Your task to perform on an android device: Search for seafood restaurants on Google Maps Image 0: 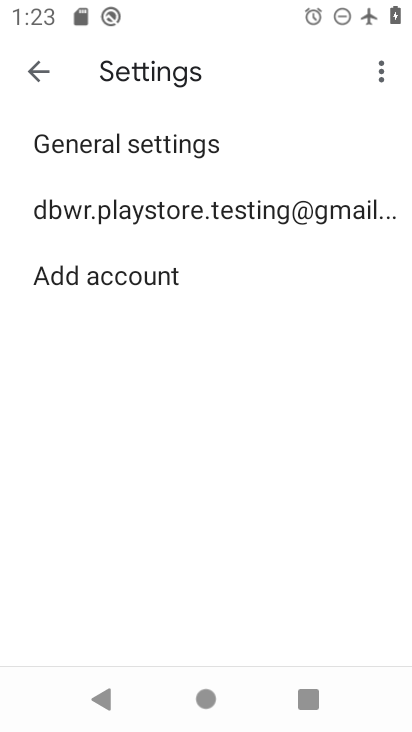
Step 0: click (193, 693)
Your task to perform on an android device: Search for seafood restaurants on Google Maps Image 1: 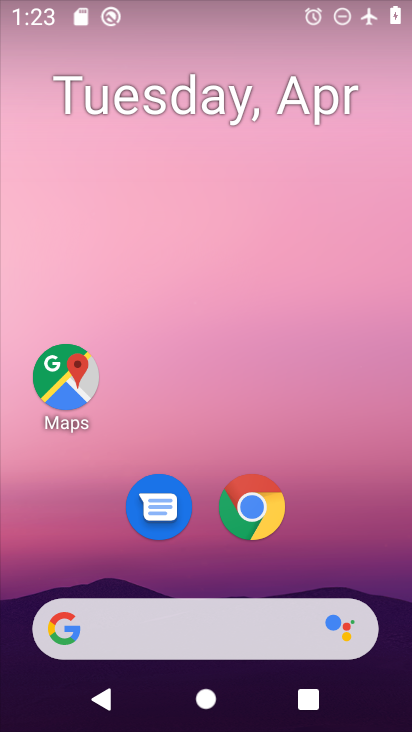
Step 1: click (77, 405)
Your task to perform on an android device: Search for seafood restaurants on Google Maps Image 2: 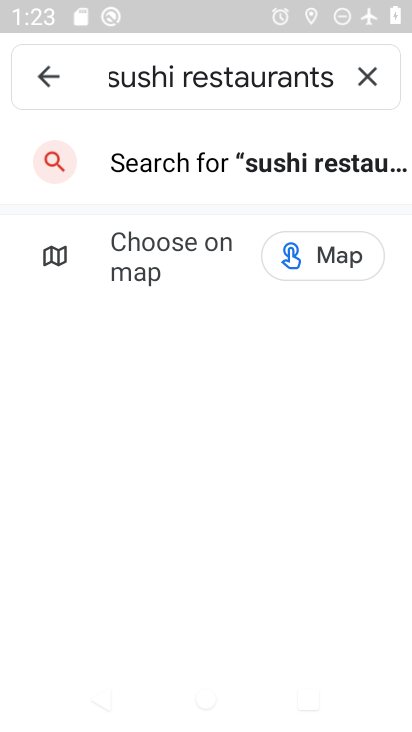
Step 2: click (370, 70)
Your task to perform on an android device: Search for seafood restaurants on Google Maps Image 3: 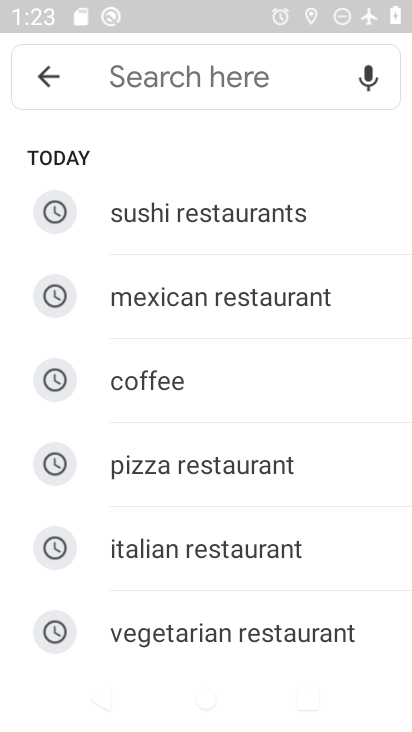
Step 3: drag from (273, 544) to (264, 343)
Your task to perform on an android device: Search for seafood restaurants on Google Maps Image 4: 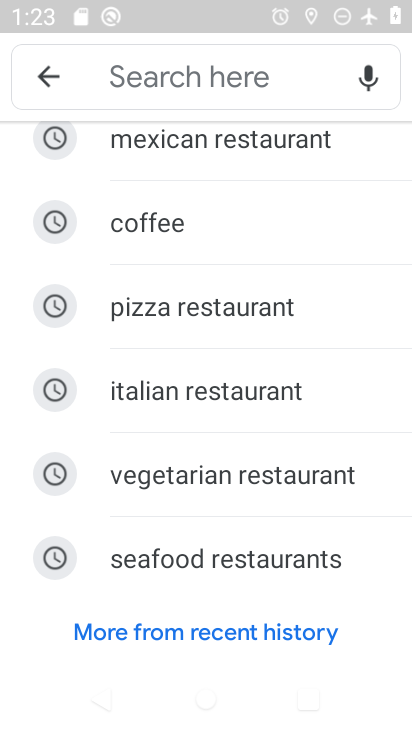
Step 4: click (254, 579)
Your task to perform on an android device: Search for seafood restaurants on Google Maps Image 5: 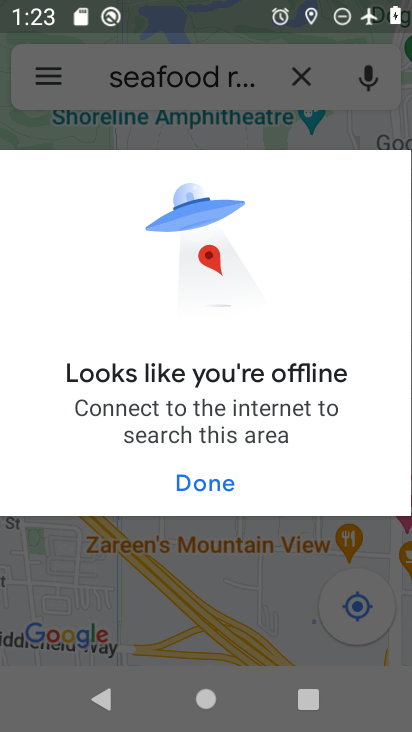
Step 5: task complete